Your task to perform on an android device: Add razer blackwidow to the cart on ebay, then select checkout. Image 0: 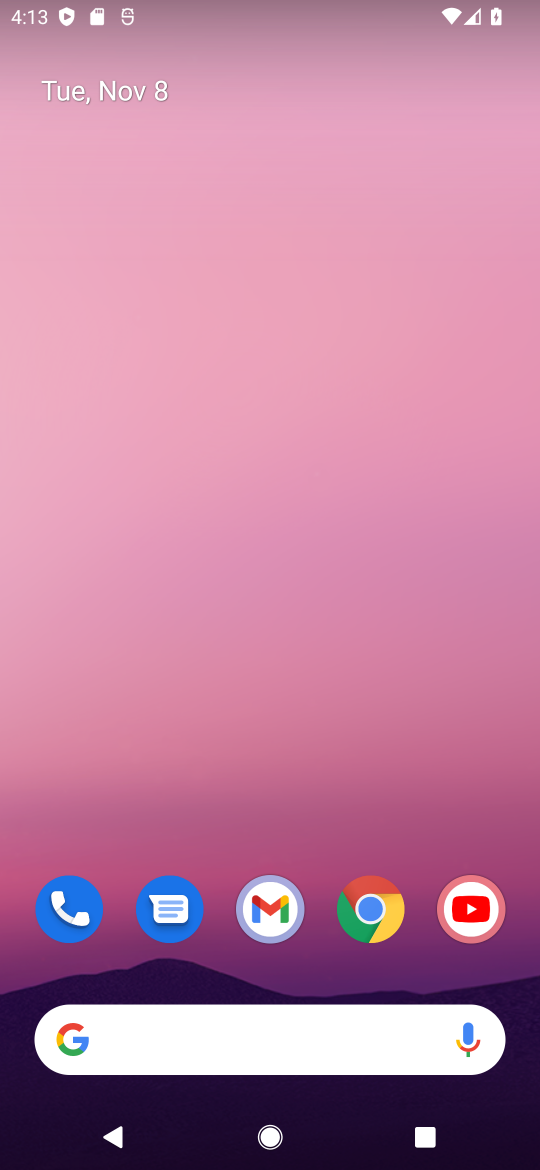
Step 0: click (363, 906)
Your task to perform on an android device: Add razer blackwidow to the cart on ebay, then select checkout. Image 1: 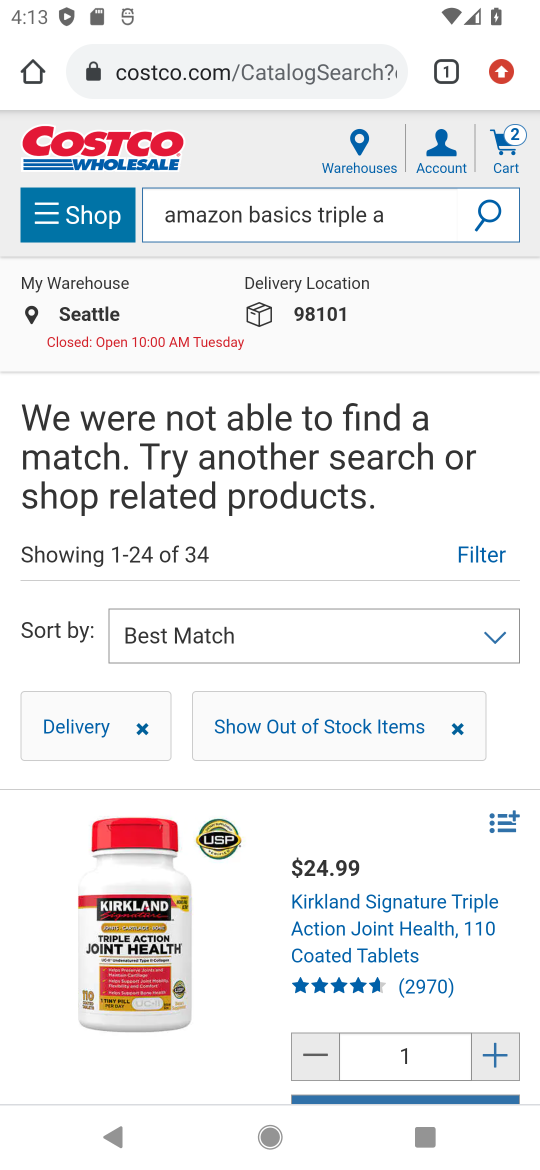
Step 1: click (257, 71)
Your task to perform on an android device: Add razer blackwidow to the cart on ebay, then select checkout. Image 2: 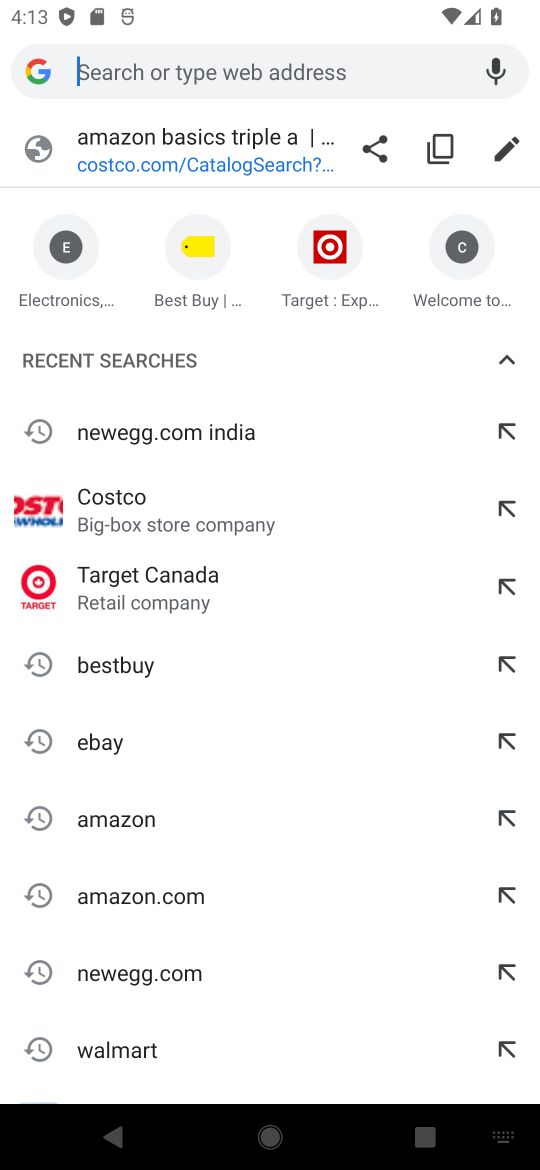
Step 2: click (94, 740)
Your task to perform on an android device: Add razer blackwidow to the cart on ebay, then select checkout. Image 3: 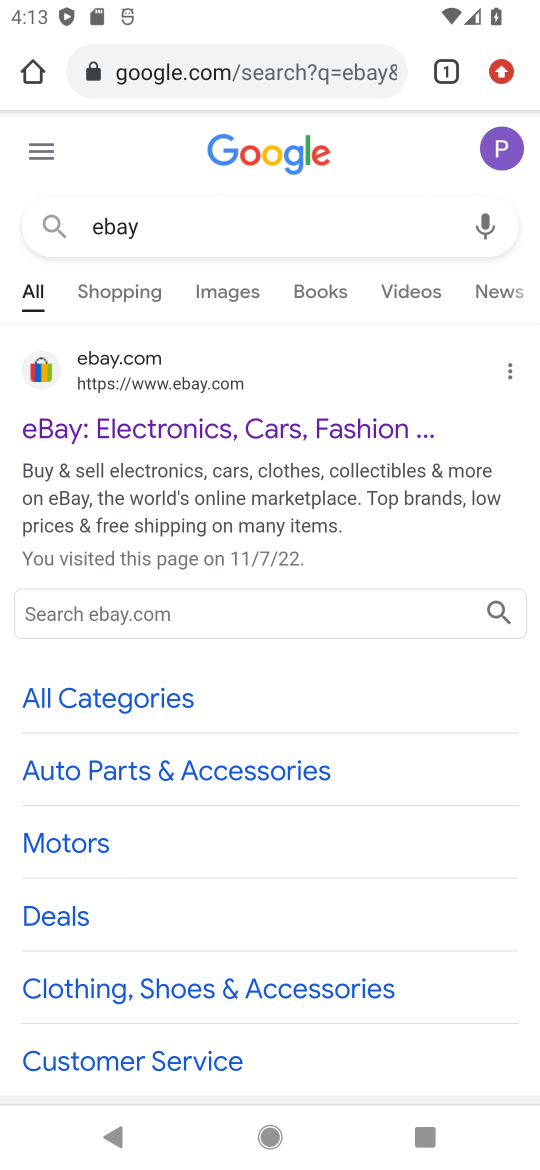
Step 3: click (179, 426)
Your task to perform on an android device: Add razer blackwidow to the cart on ebay, then select checkout. Image 4: 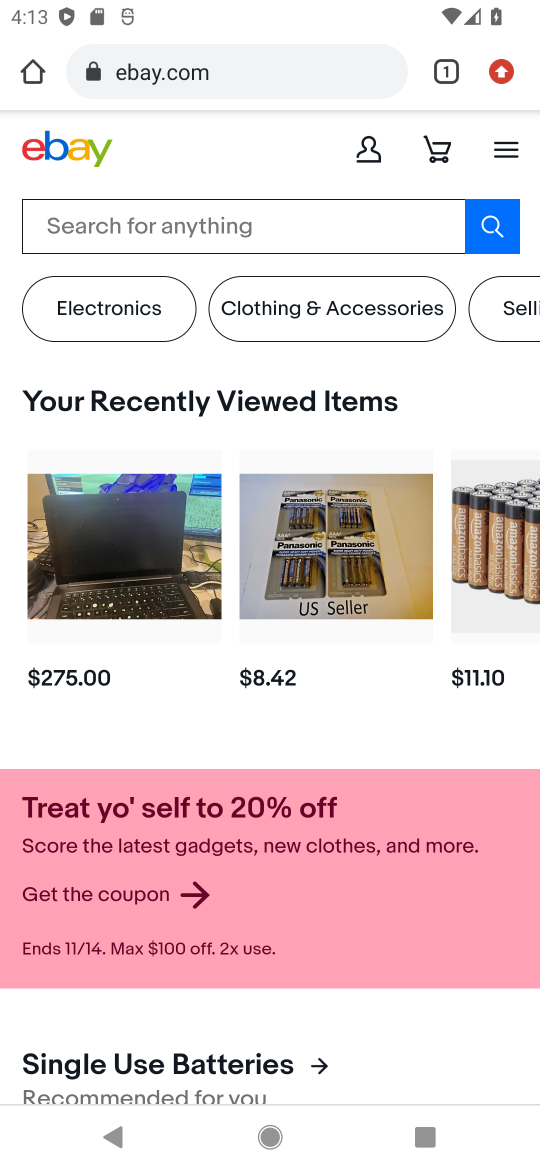
Step 4: click (126, 221)
Your task to perform on an android device: Add razer blackwidow to the cart on ebay, then select checkout. Image 5: 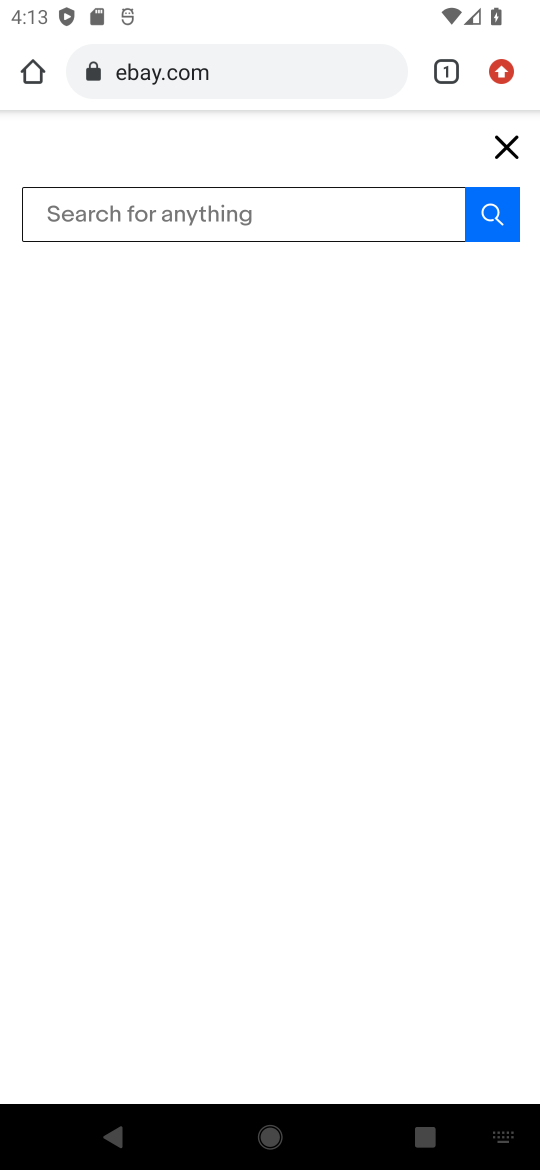
Step 5: type " razer blackwidow"
Your task to perform on an android device: Add razer blackwidow to the cart on ebay, then select checkout. Image 6: 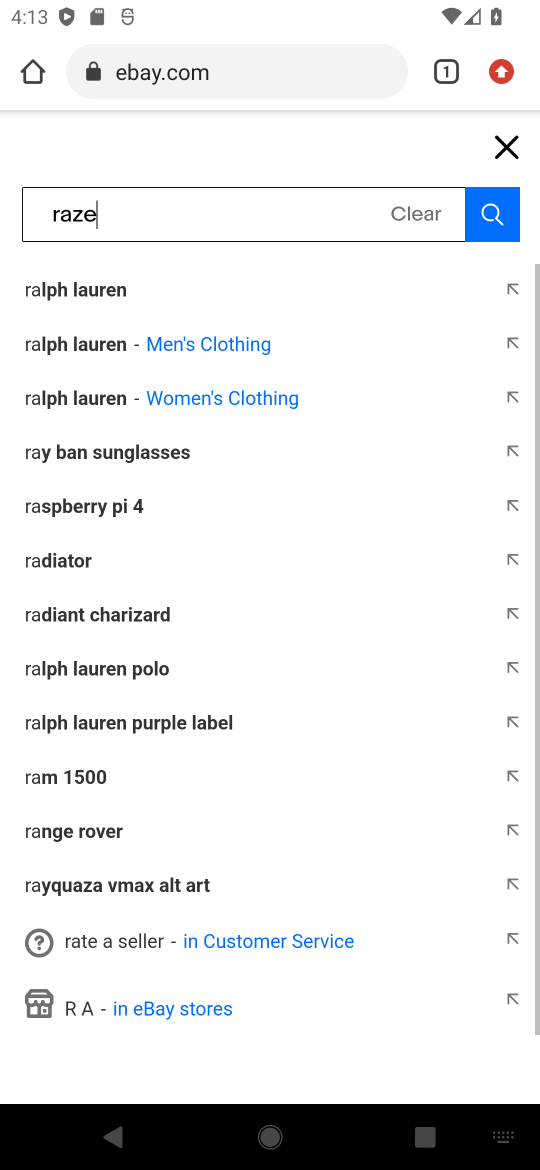
Step 6: press enter
Your task to perform on an android device: Add razer blackwidow to the cart on ebay, then select checkout. Image 7: 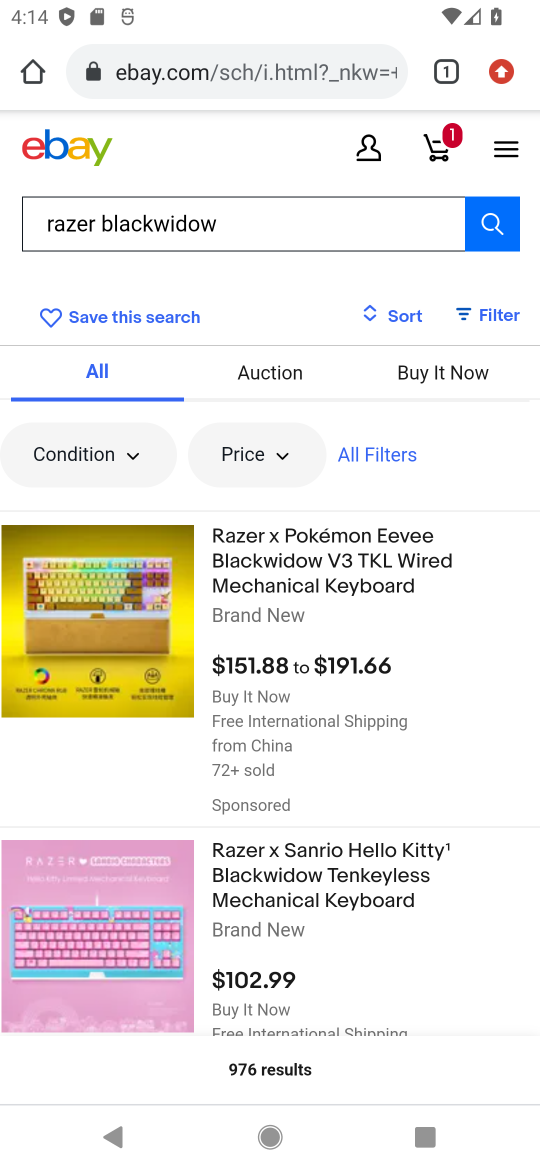
Step 7: task complete